Your task to perform on an android device: Open the calendar and show me this week's events Image 0: 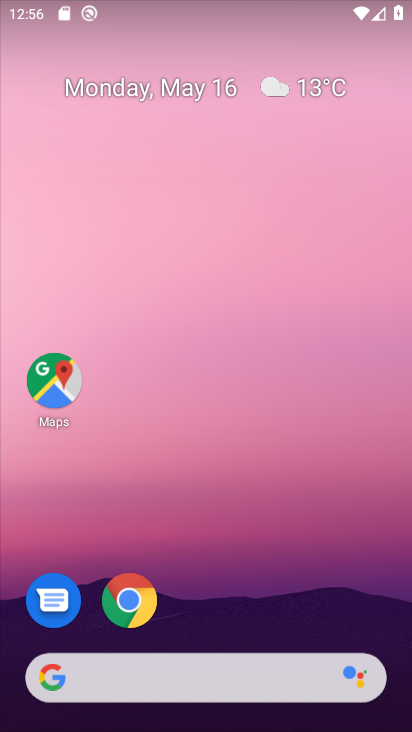
Step 0: drag from (193, 550) to (12, 65)
Your task to perform on an android device: Open the calendar and show me this week's events Image 1: 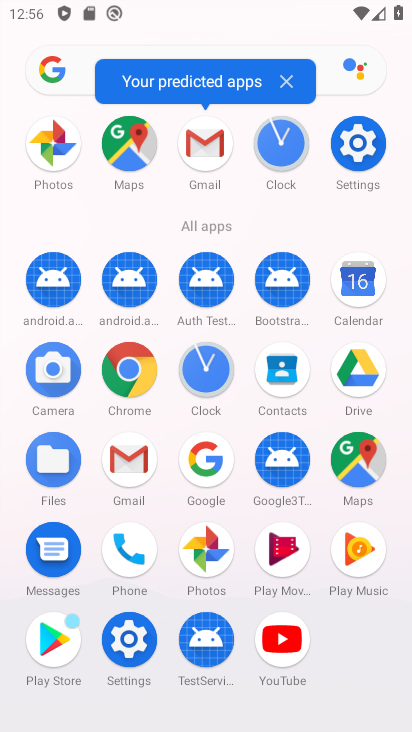
Step 1: click (370, 290)
Your task to perform on an android device: Open the calendar and show me this week's events Image 2: 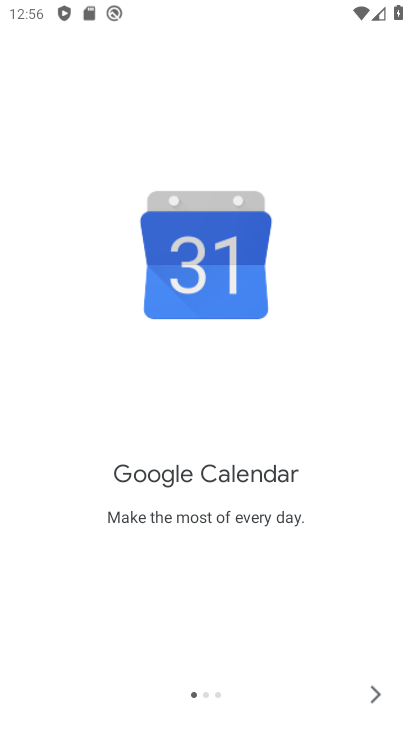
Step 2: click (386, 683)
Your task to perform on an android device: Open the calendar and show me this week's events Image 3: 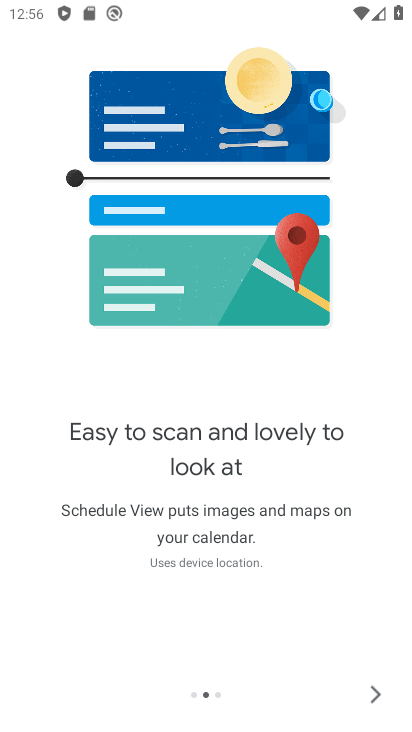
Step 3: click (378, 690)
Your task to perform on an android device: Open the calendar and show me this week's events Image 4: 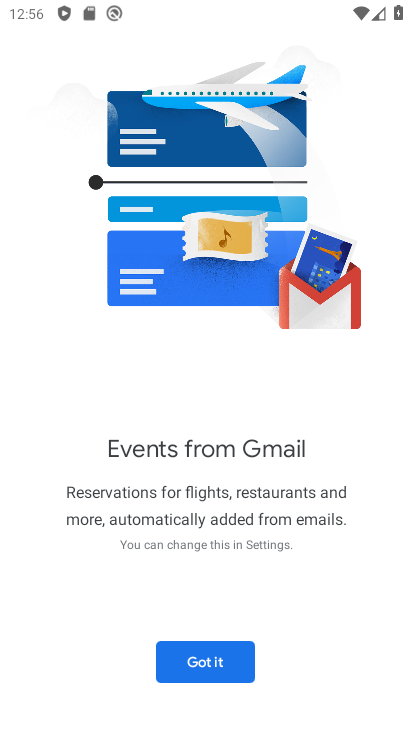
Step 4: click (192, 669)
Your task to perform on an android device: Open the calendar and show me this week's events Image 5: 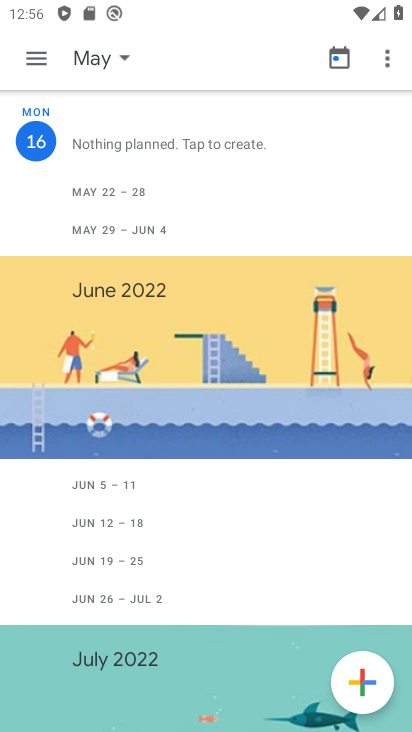
Step 5: click (34, 60)
Your task to perform on an android device: Open the calendar and show me this week's events Image 6: 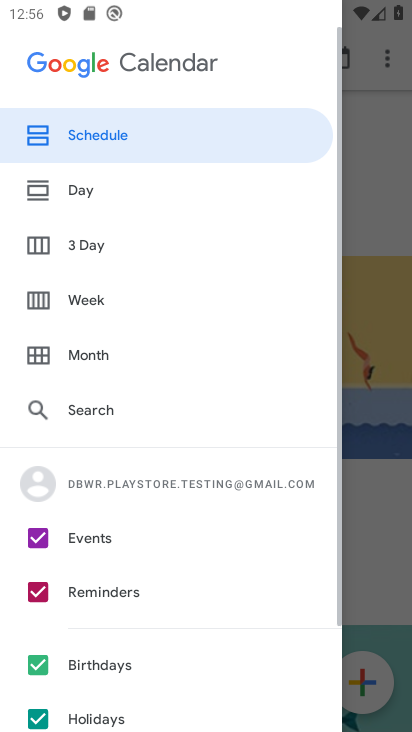
Step 6: click (68, 301)
Your task to perform on an android device: Open the calendar and show me this week's events Image 7: 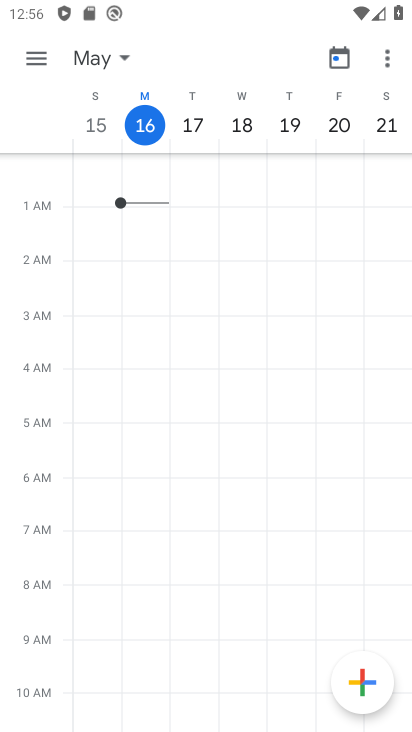
Step 7: drag from (268, 646) to (85, 322)
Your task to perform on an android device: Open the calendar and show me this week's events Image 8: 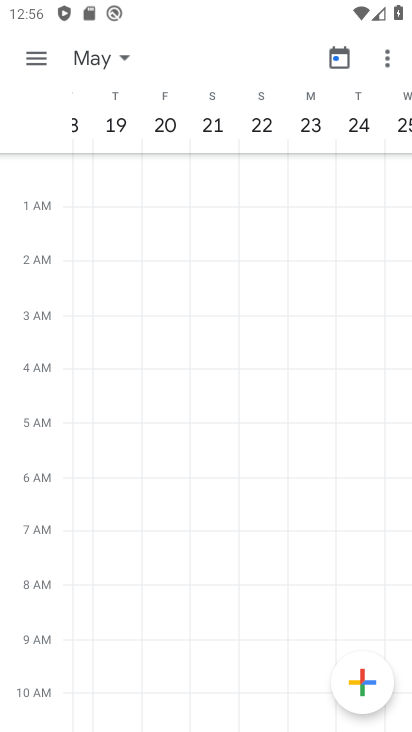
Step 8: click (85, 322)
Your task to perform on an android device: Open the calendar and show me this week's events Image 9: 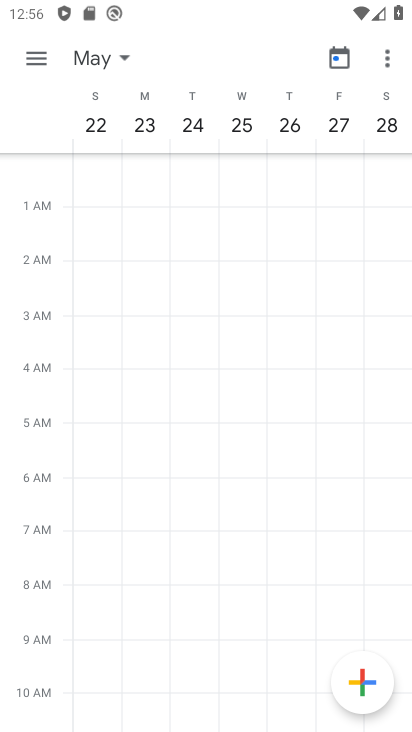
Step 9: drag from (133, 322) to (304, 327)
Your task to perform on an android device: Open the calendar and show me this week's events Image 10: 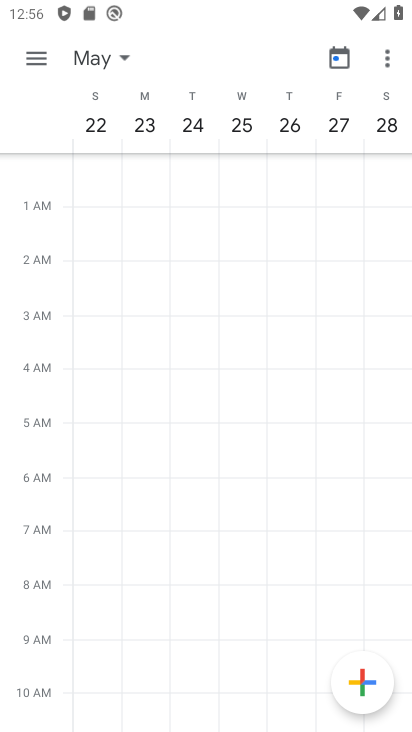
Step 10: drag from (94, 128) to (175, 229)
Your task to perform on an android device: Open the calendar and show me this week's events Image 11: 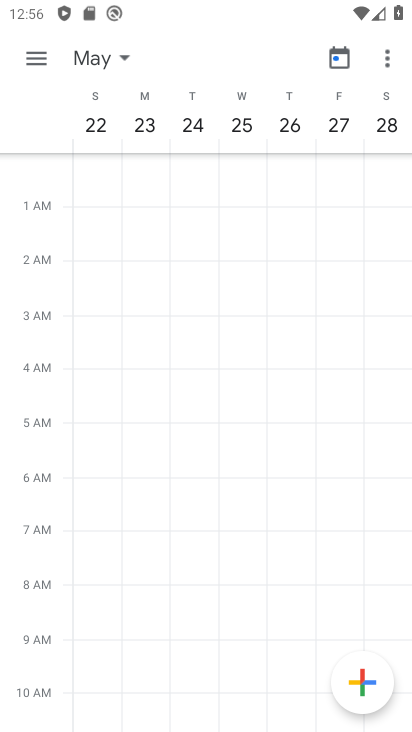
Step 11: click (81, 57)
Your task to perform on an android device: Open the calendar and show me this week's events Image 12: 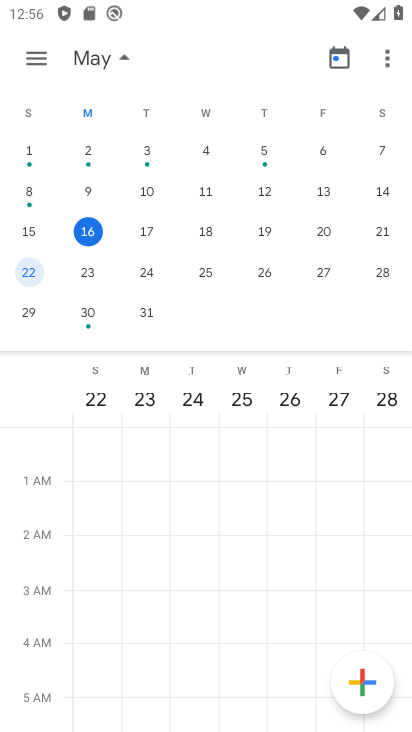
Step 12: click (91, 232)
Your task to perform on an android device: Open the calendar and show me this week's events Image 13: 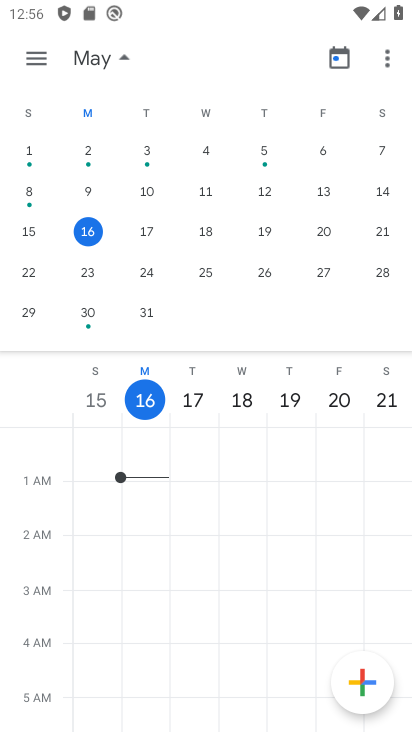
Step 13: task complete